Your task to perform on an android device: What's the weather going to be tomorrow? Image 0: 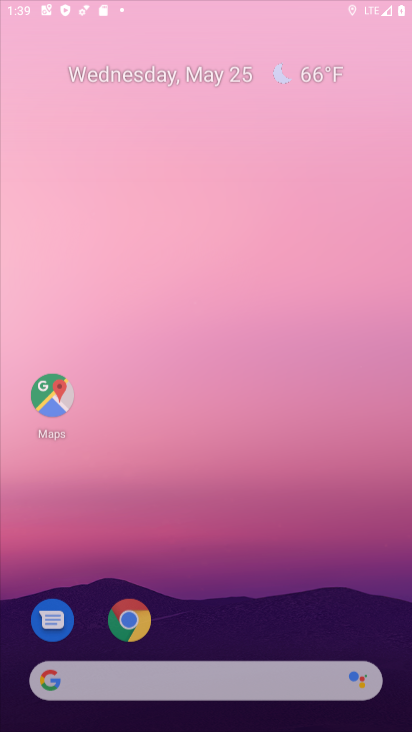
Step 0: drag from (203, 650) to (245, 139)
Your task to perform on an android device: What's the weather going to be tomorrow? Image 1: 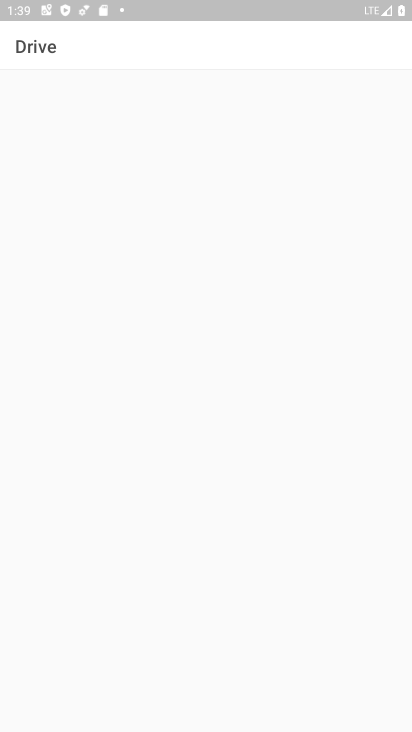
Step 1: press home button
Your task to perform on an android device: What's the weather going to be tomorrow? Image 2: 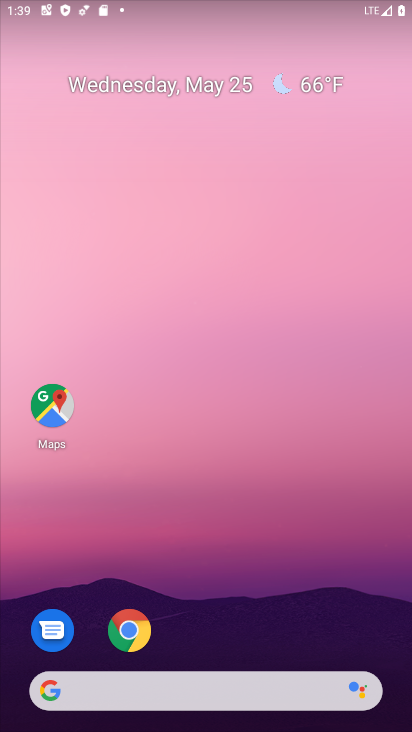
Step 2: click (317, 86)
Your task to perform on an android device: What's the weather going to be tomorrow? Image 3: 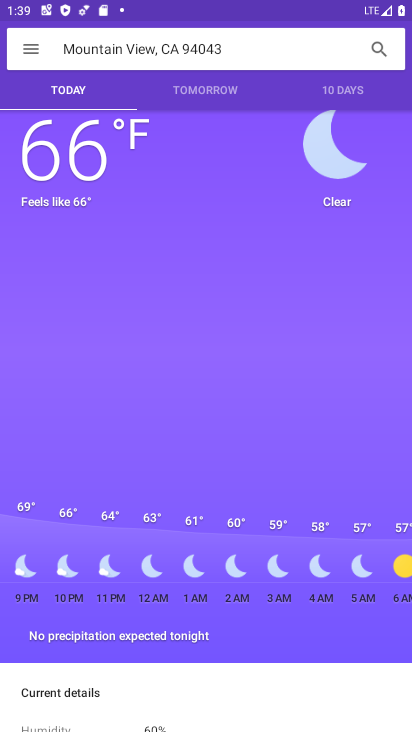
Step 3: click (193, 92)
Your task to perform on an android device: What's the weather going to be tomorrow? Image 4: 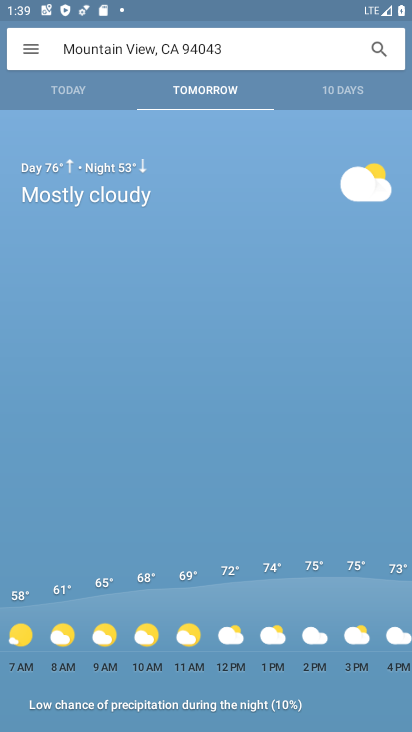
Step 4: task complete